Your task to perform on an android device: delete browsing data in the chrome app Image 0: 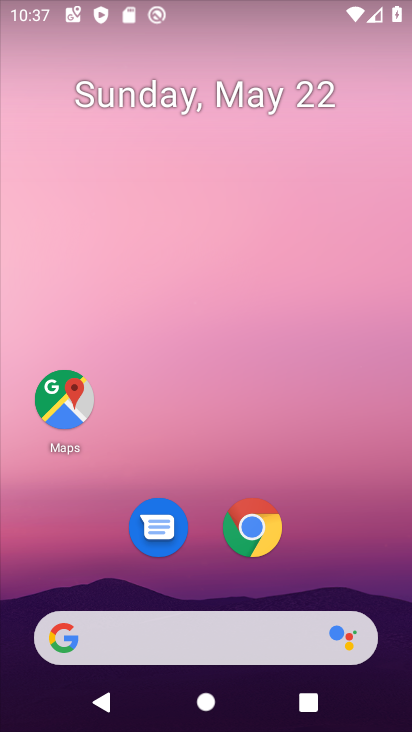
Step 0: click (251, 540)
Your task to perform on an android device: delete browsing data in the chrome app Image 1: 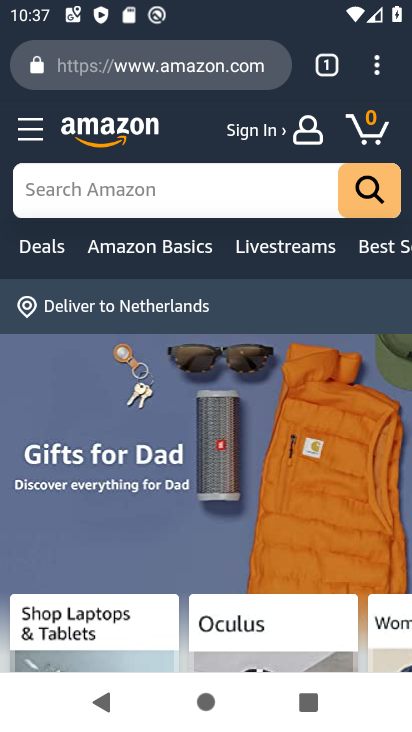
Step 1: click (378, 76)
Your task to perform on an android device: delete browsing data in the chrome app Image 2: 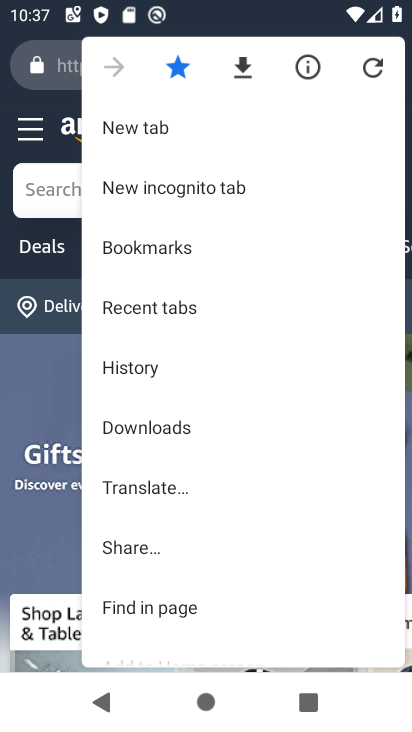
Step 2: drag from (180, 595) to (216, 352)
Your task to perform on an android device: delete browsing data in the chrome app Image 3: 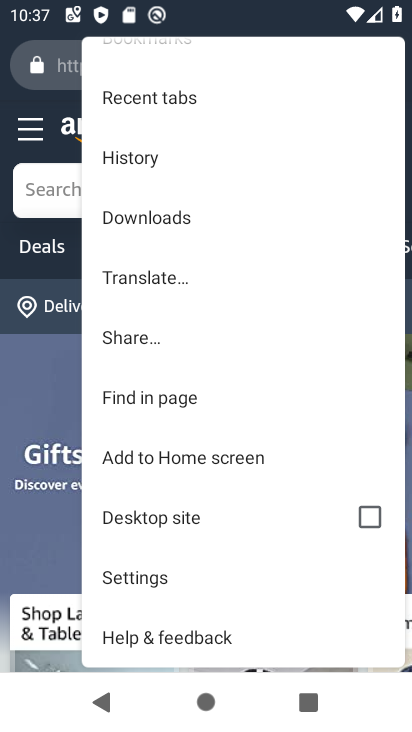
Step 3: click (163, 562)
Your task to perform on an android device: delete browsing data in the chrome app Image 4: 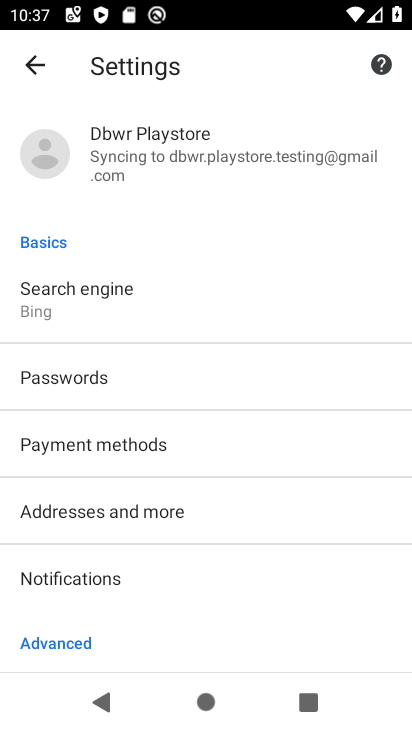
Step 4: task complete